Your task to perform on an android device: Add "logitech g903" to the cart on walmart Image 0: 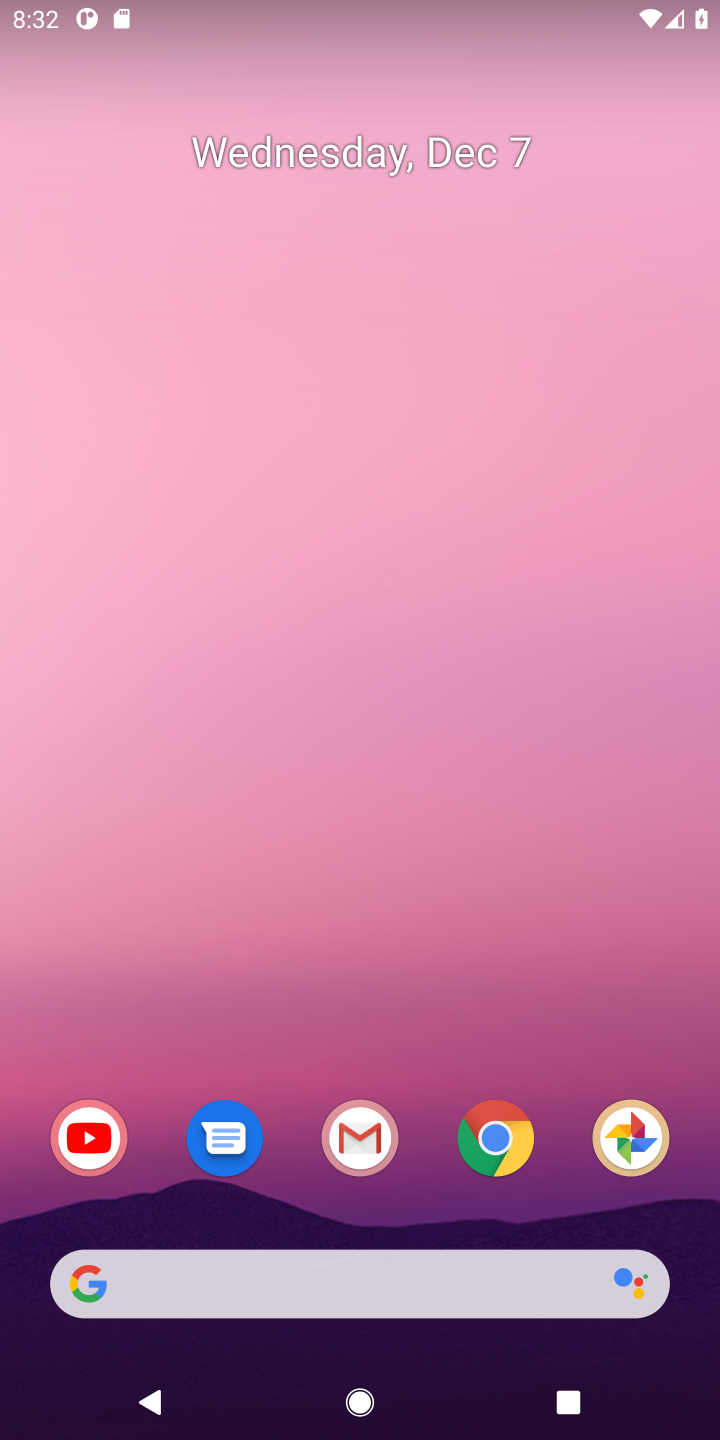
Step 0: press home button
Your task to perform on an android device: Add "logitech g903" to the cart on walmart Image 1: 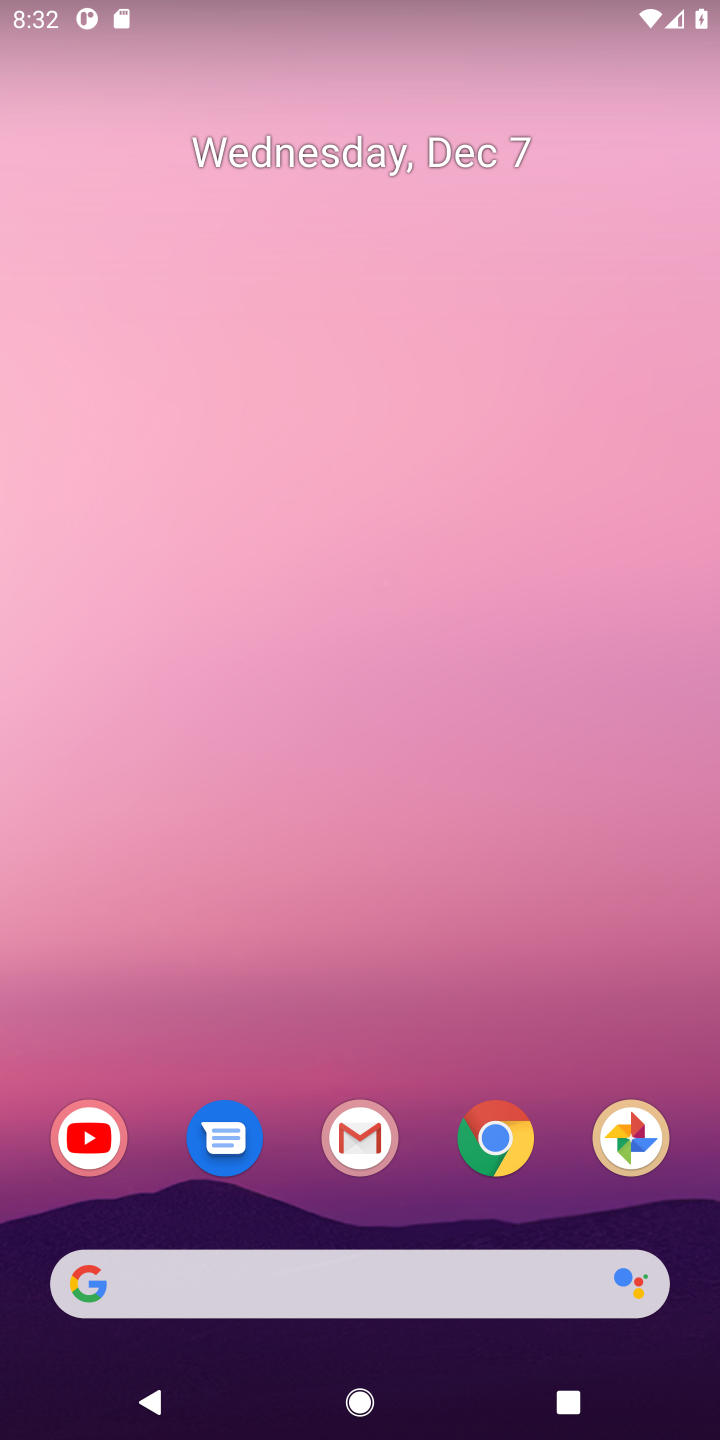
Step 1: click (135, 1288)
Your task to perform on an android device: Add "logitech g903" to the cart on walmart Image 2: 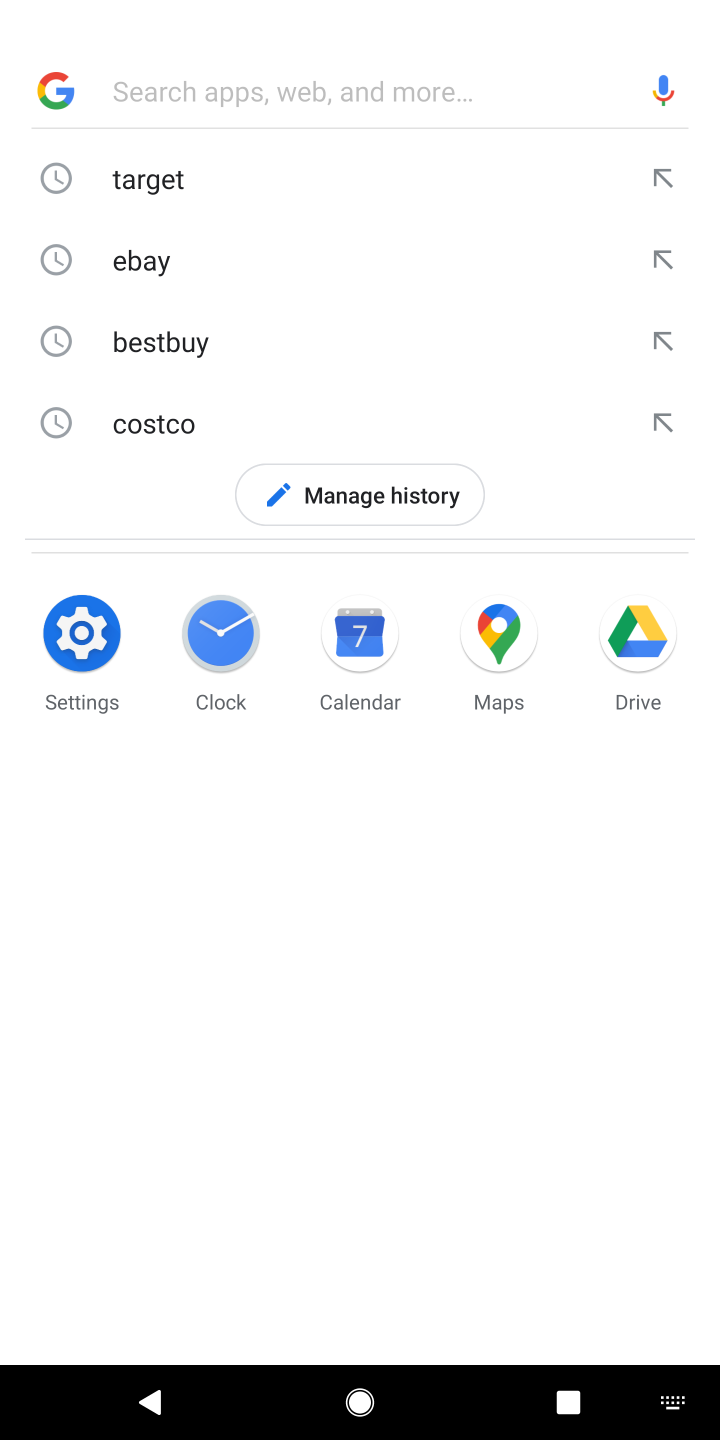
Step 2: type "walmart"
Your task to perform on an android device: Add "logitech g903" to the cart on walmart Image 3: 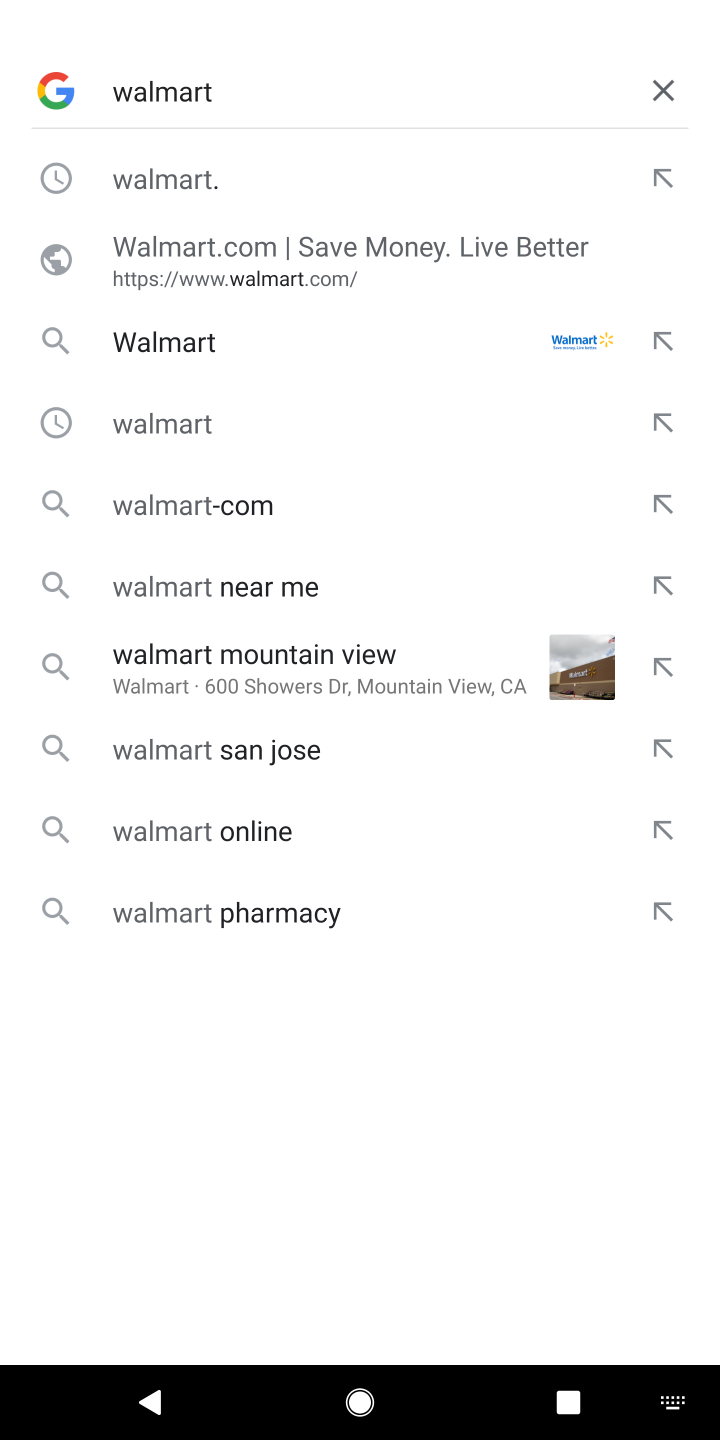
Step 3: press enter
Your task to perform on an android device: Add "logitech g903" to the cart on walmart Image 4: 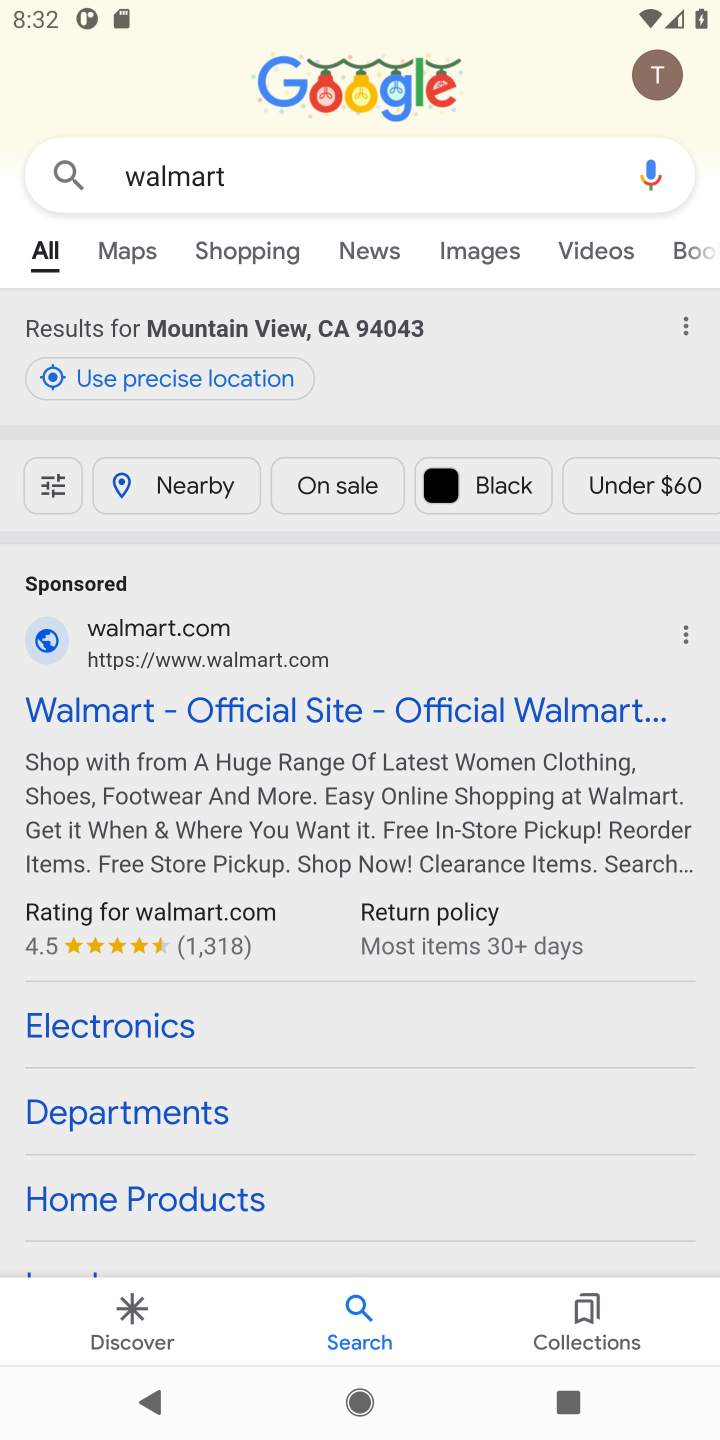
Step 4: click (350, 717)
Your task to perform on an android device: Add "logitech g903" to the cart on walmart Image 5: 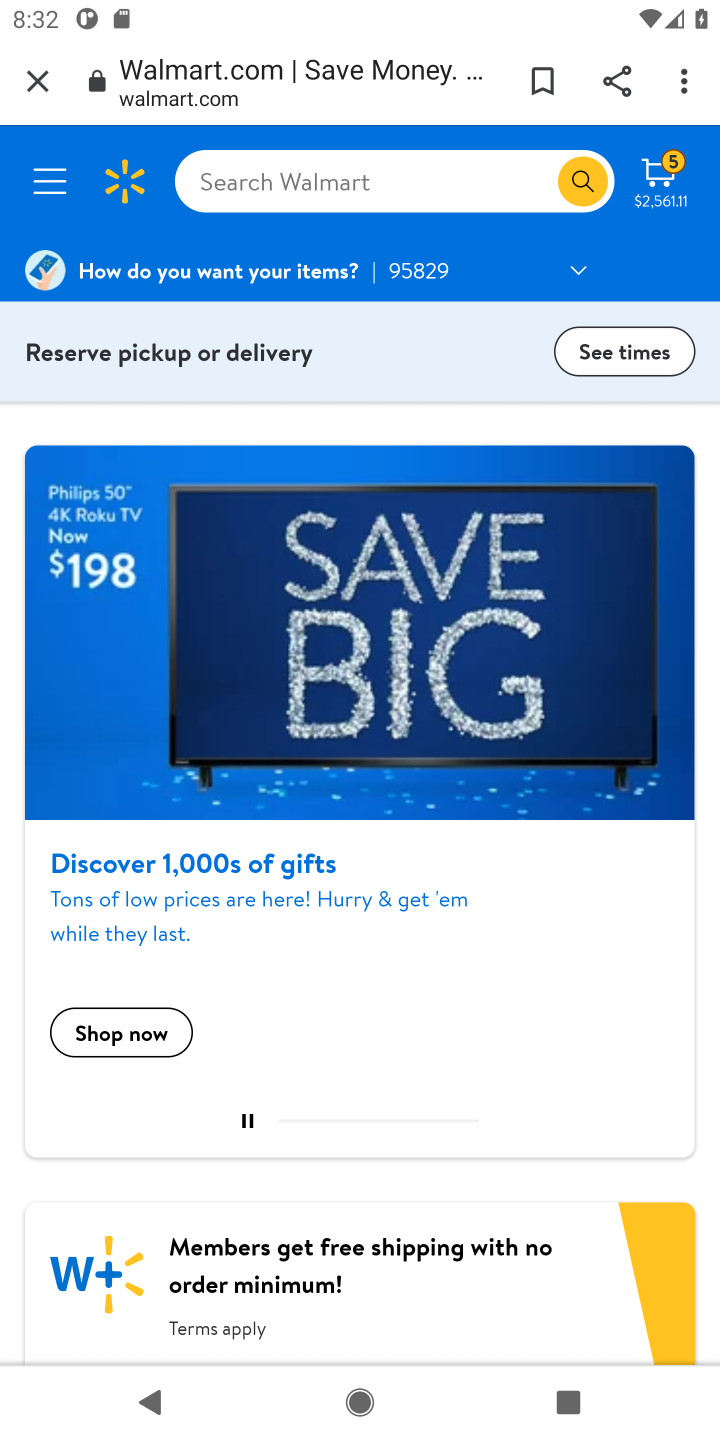
Step 5: click (208, 173)
Your task to perform on an android device: Add "logitech g903" to the cart on walmart Image 6: 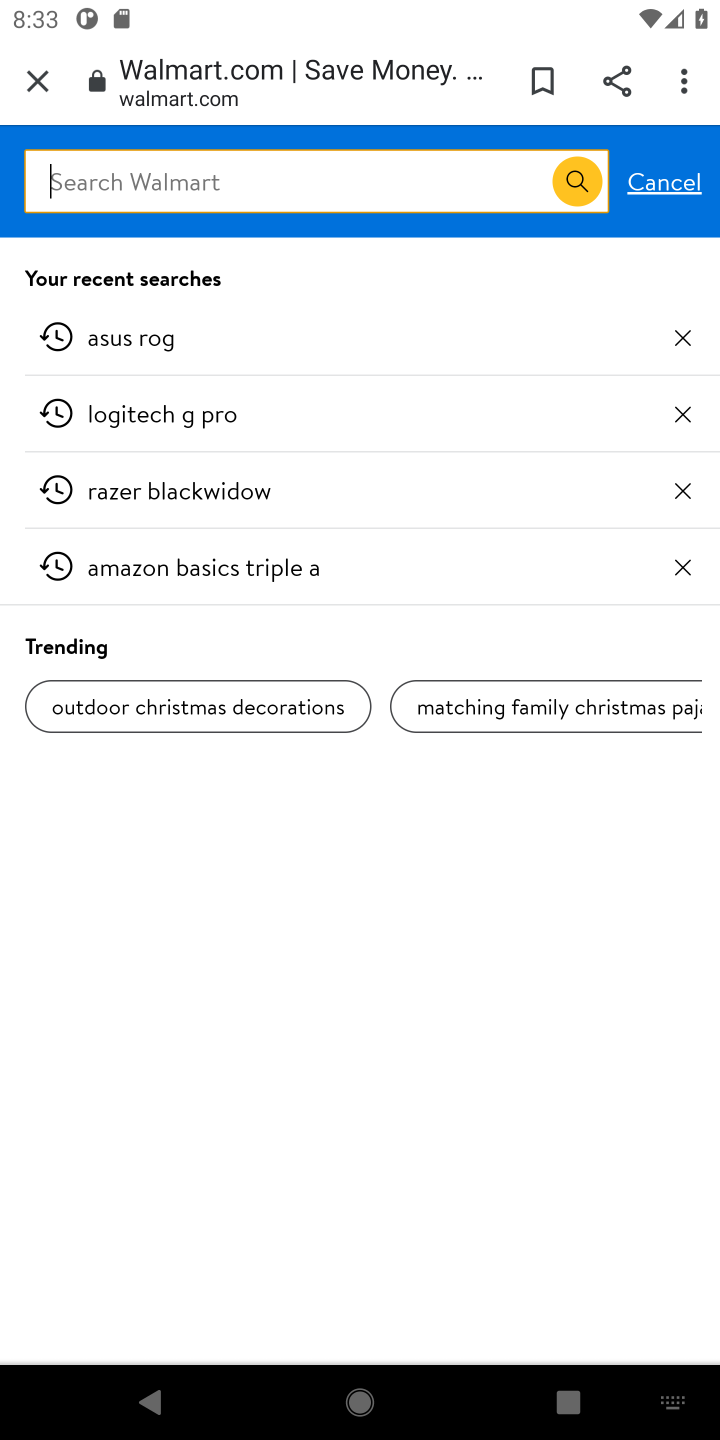
Step 6: type "logitech g903"
Your task to perform on an android device: Add "logitech g903" to the cart on walmart Image 7: 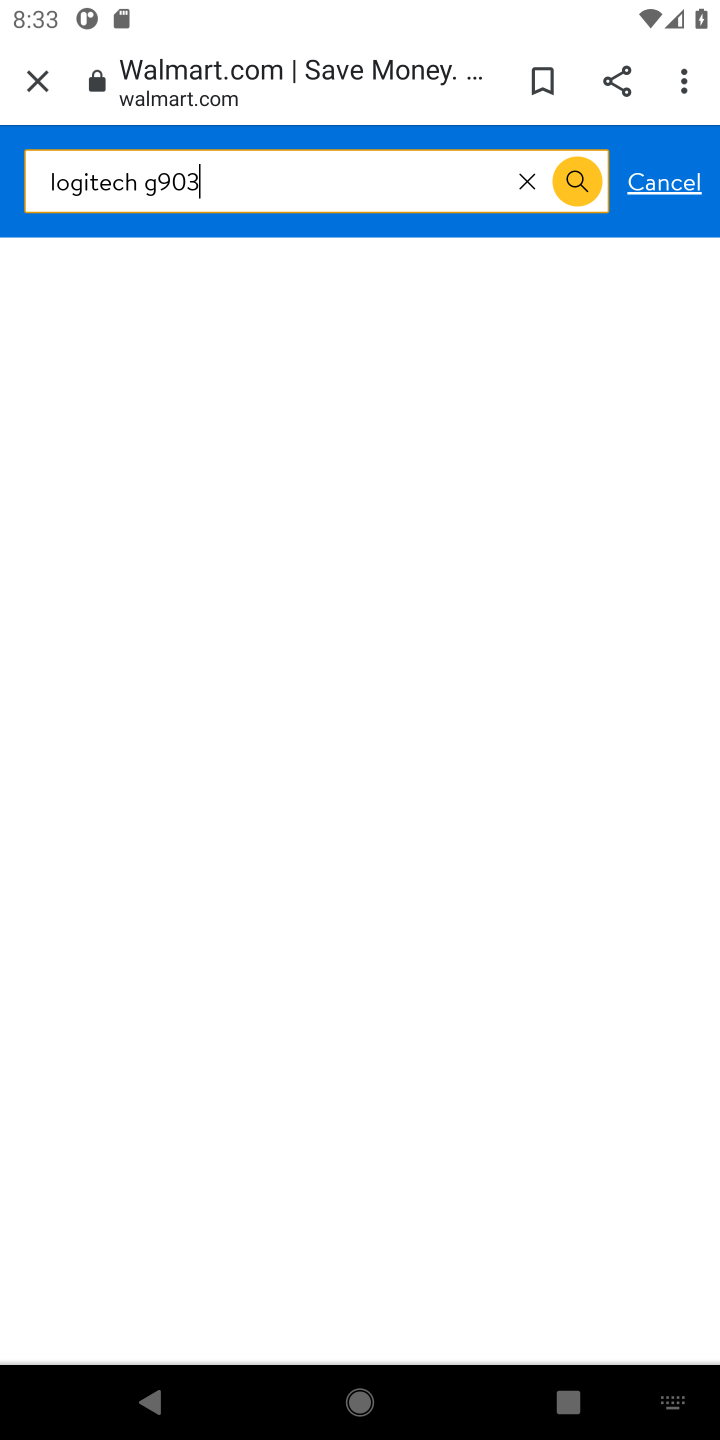
Step 7: press enter
Your task to perform on an android device: Add "logitech g903" to the cart on walmart Image 8: 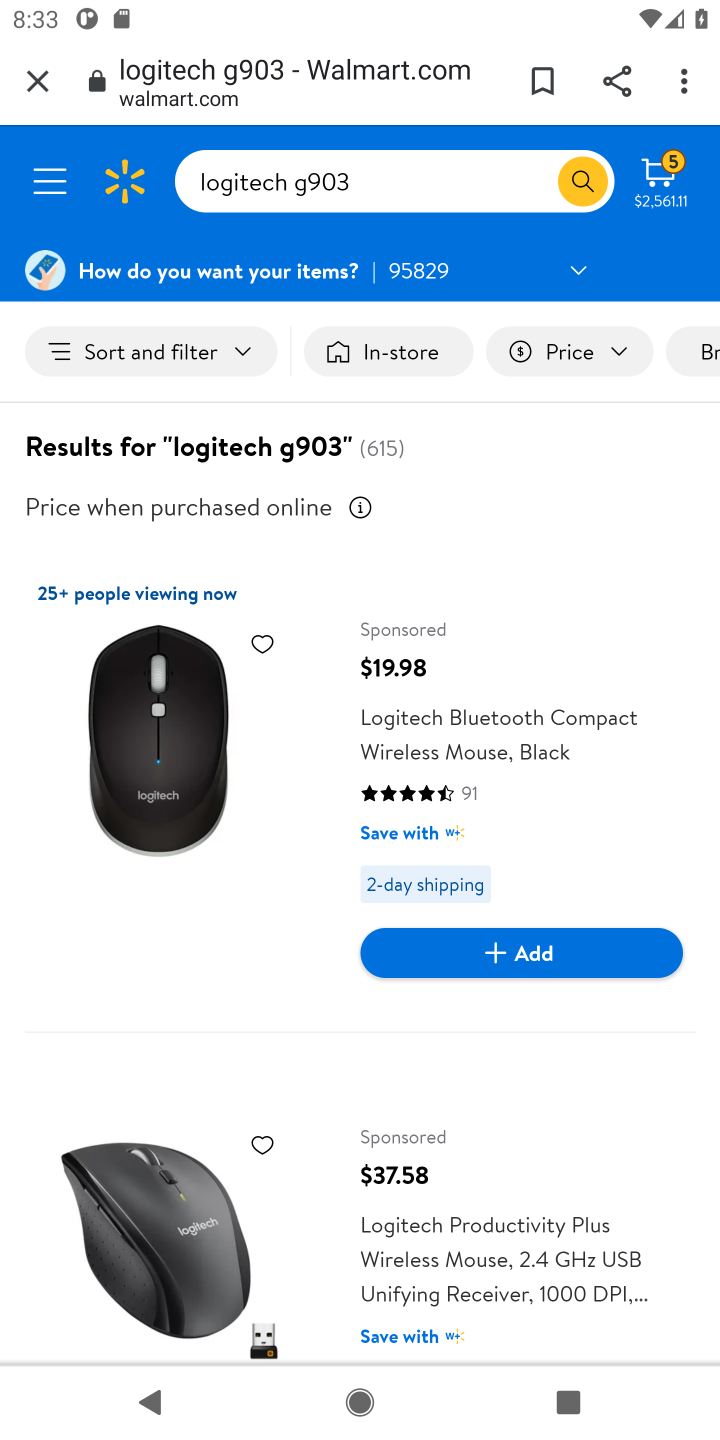
Step 8: click (527, 957)
Your task to perform on an android device: Add "logitech g903" to the cart on walmart Image 9: 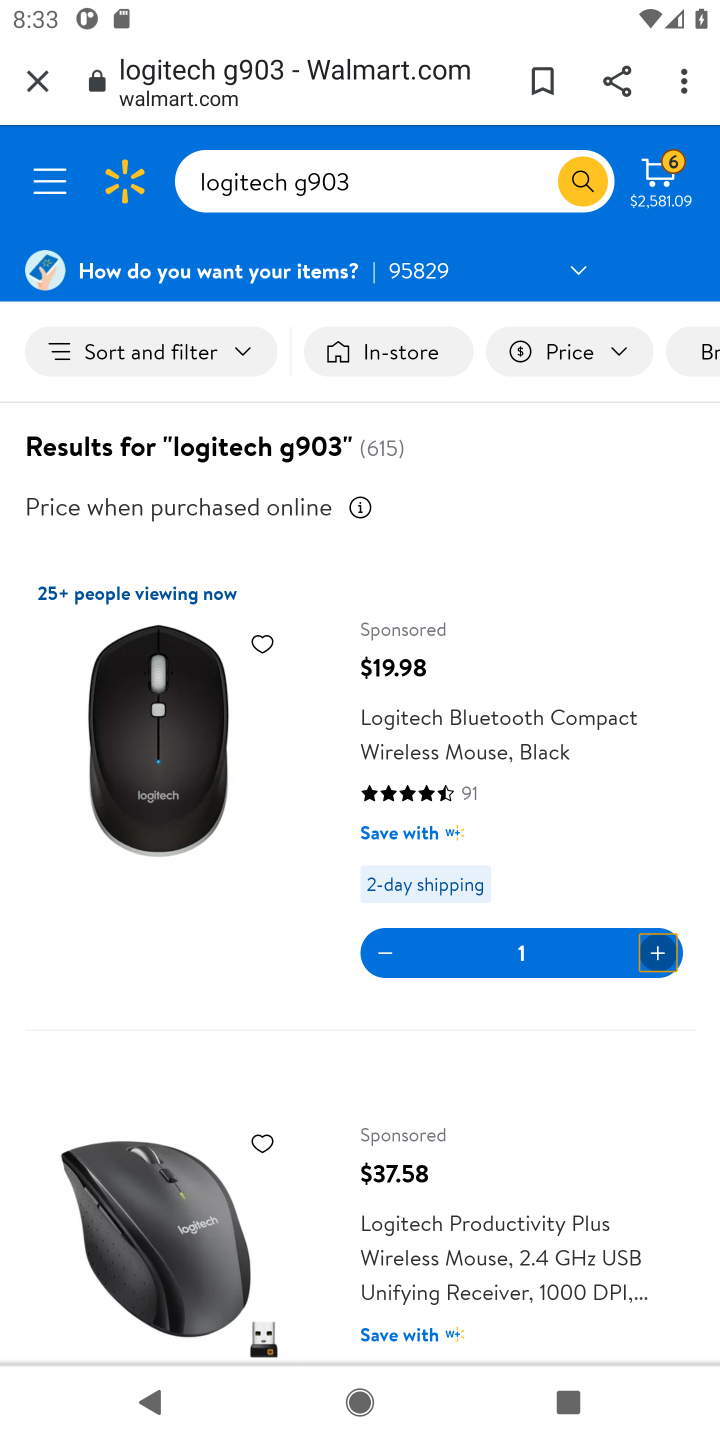
Step 9: task complete